Your task to perform on an android device: toggle airplane mode Image 0: 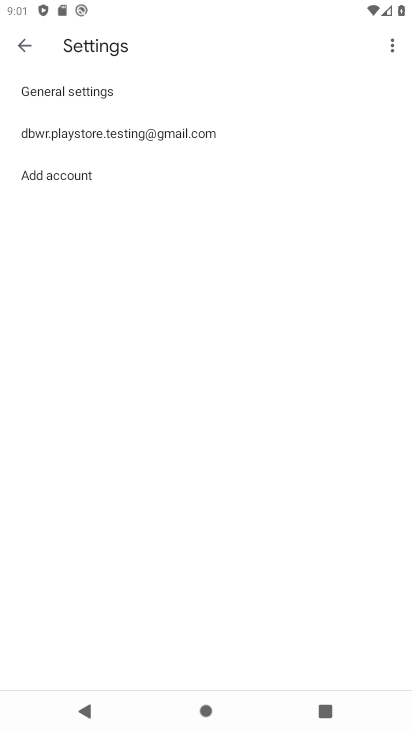
Step 0: press home button
Your task to perform on an android device: toggle airplane mode Image 1: 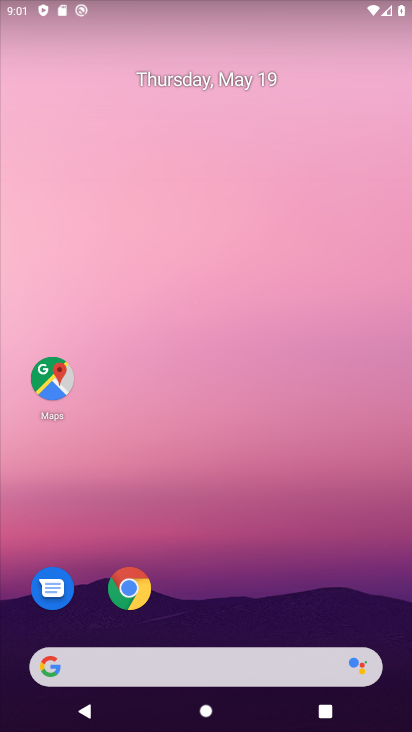
Step 1: drag from (253, 615) to (231, 27)
Your task to perform on an android device: toggle airplane mode Image 2: 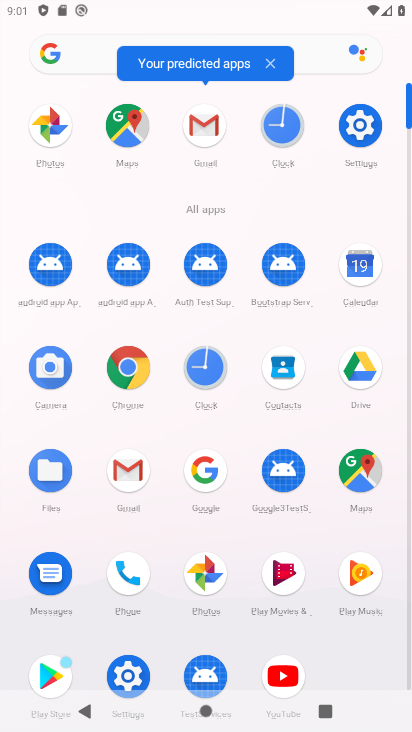
Step 2: click (355, 117)
Your task to perform on an android device: toggle airplane mode Image 3: 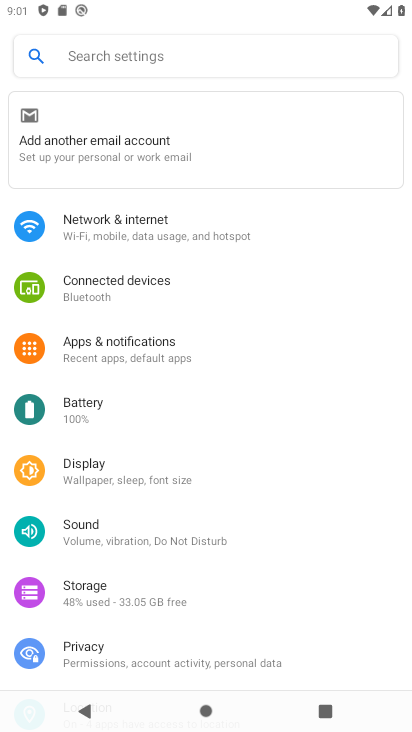
Step 3: click (77, 217)
Your task to perform on an android device: toggle airplane mode Image 4: 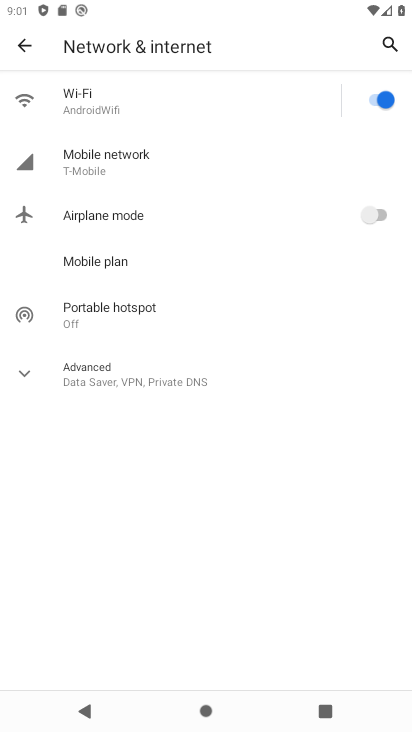
Step 4: click (359, 211)
Your task to perform on an android device: toggle airplane mode Image 5: 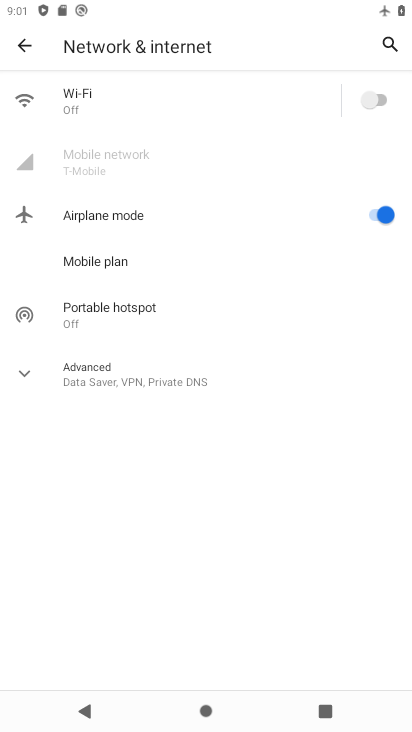
Step 5: task complete